Your task to perform on an android device: turn off location Image 0: 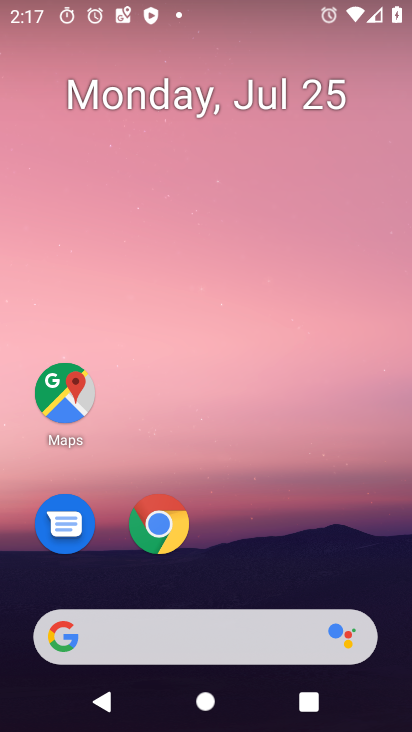
Step 0: press home button
Your task to perform on an android device: turn off location Image 1: 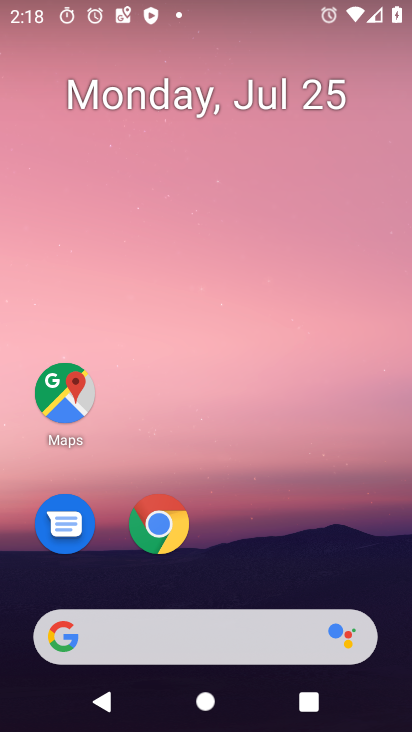
Step 1: drag from (257, 555) to (306, 43)
Your task to perform on an android device: turn off location Image 2: 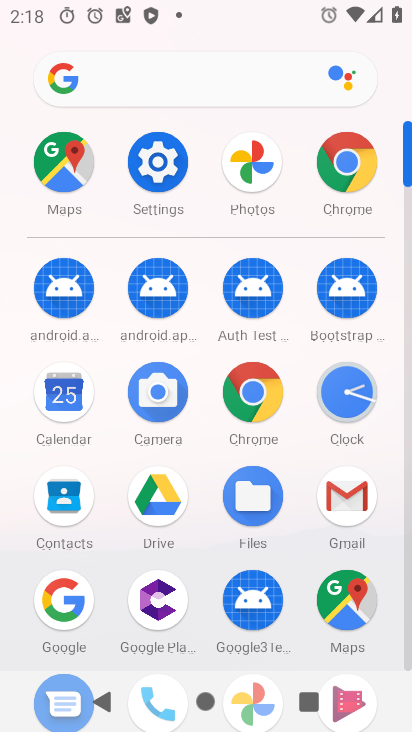
Step 2: click (171, 179)
Your task to perform on an android device: turn off location Image 3: 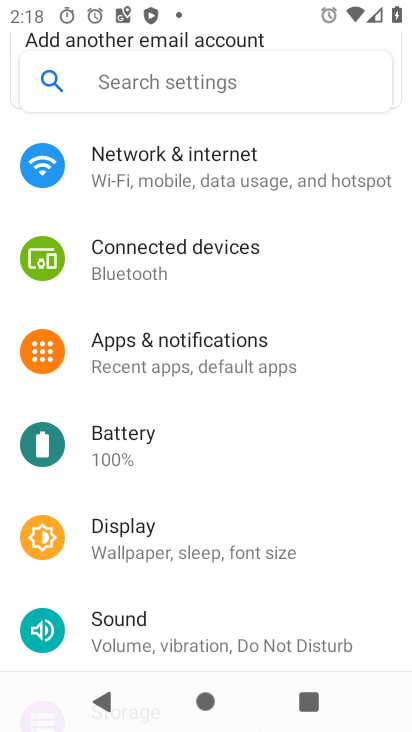
Step 3: drag from (315, 609) to (299, 105)
Your task to perform on an android device: turn off location Image 4: 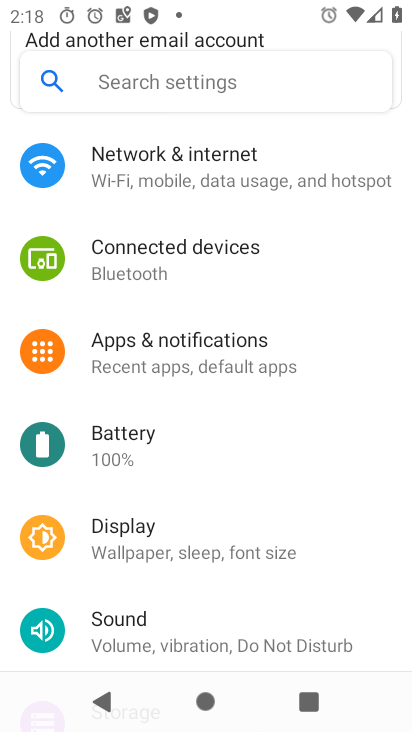
Step 4: drag from (304, 469) to (317, 18)
Your task to perform on an android device: turn off location Image 5: 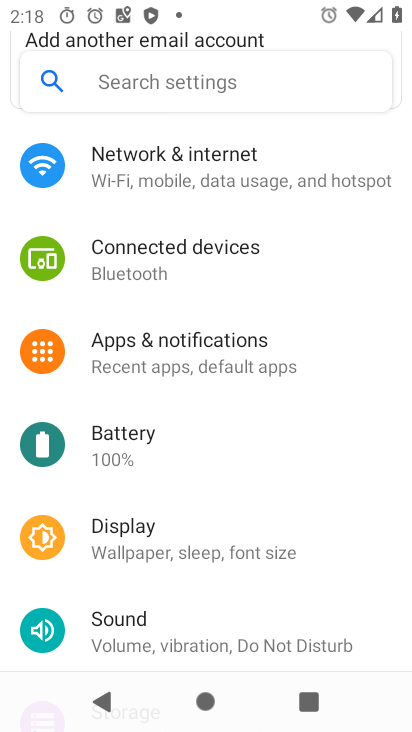
Step 5: drag from (331, 586) to (250, 52)
Your task to perform on an android device: turn off location Image 6: 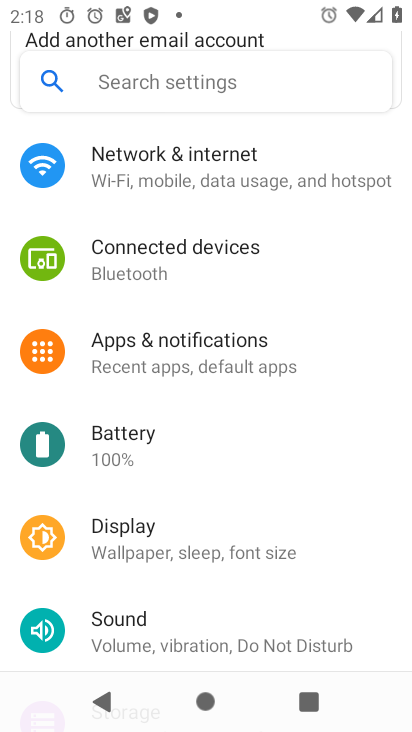
Step 6: drag from (273, 601) to (237, 126)
Your task to perform on an android device: turn off location Image 7: 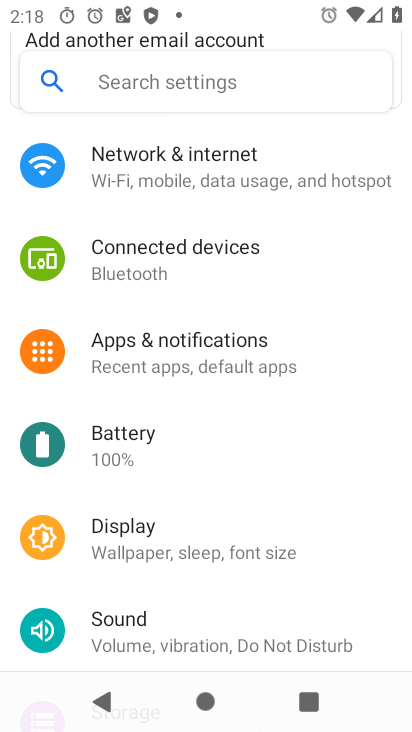
Step 7: drag from (283, 591) to (352, 50)
Your task to perform on an android device: turn off location Image 8: 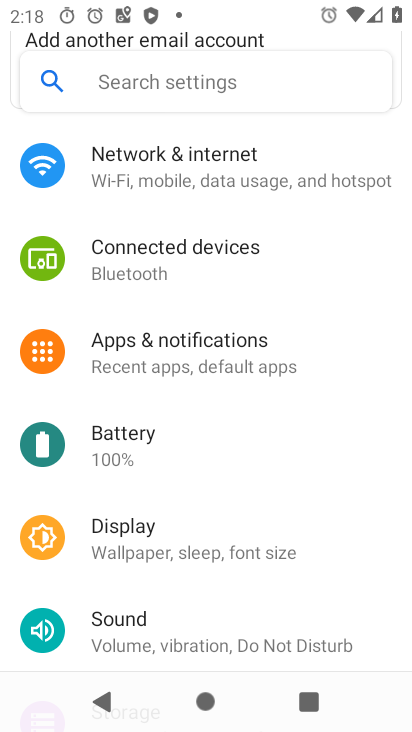
Step 8: drag from (316, 241) to (268, 0)
Your task to perform on an android device: turn off location Image 9: 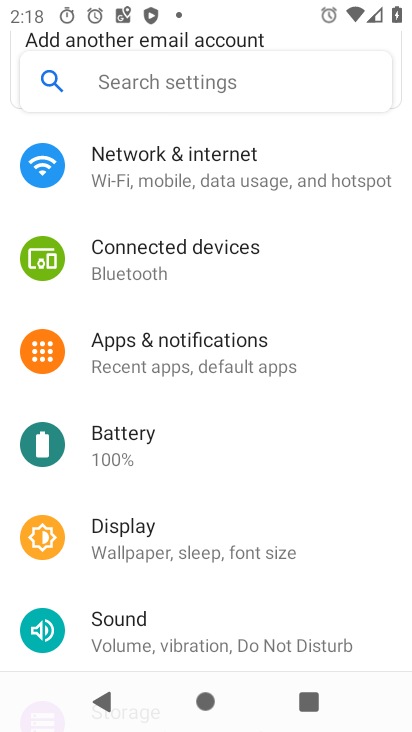
Step 9: drag from (190, 518) to (232, 93)
Your task to perform on an android device: turn off location Image 10: 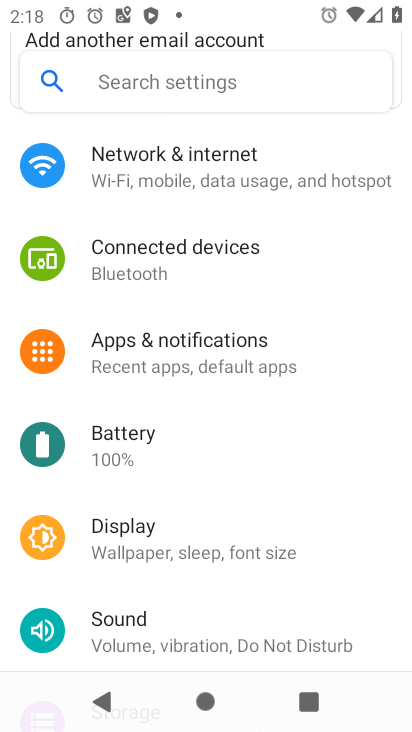
Step 10: drag from (257, 591) to (239, 30)
Your task to perform on an android device: turn off location Image 11: 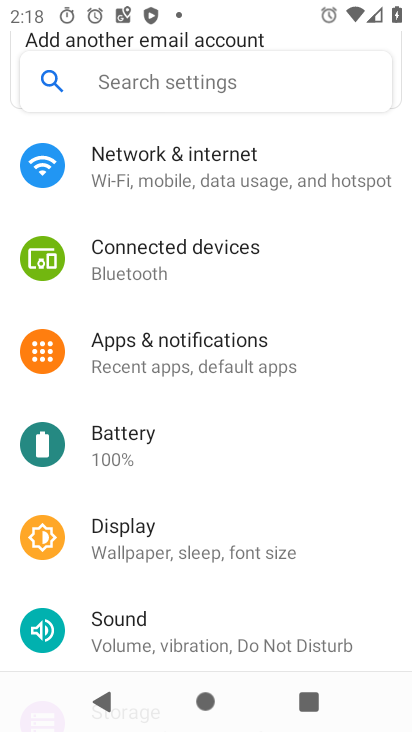
Step 11: drag from (228, 504) to (140, 10)
Your task to perform on an android device: turn off location Image 12: 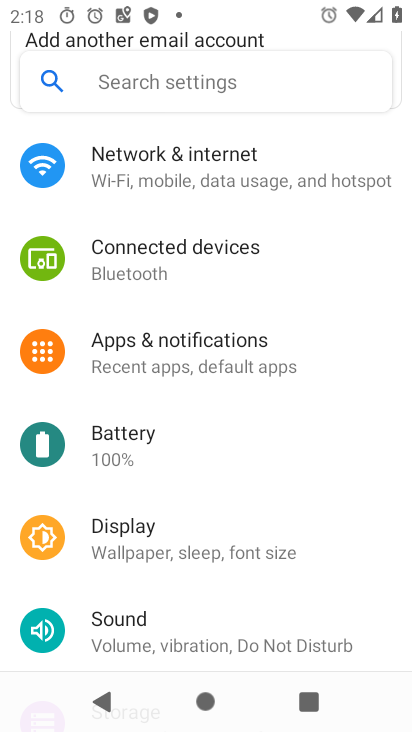
Step 12: drag from (337, 595) to (266, 22)
Your task to perform on an android device: turn off location Image 13: 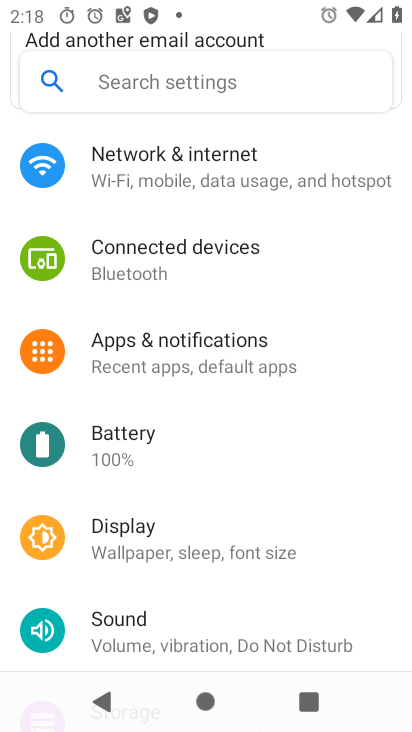
Step 13: drag from (286, 632) to (376, 26)
Your task to perform on an android device: turn off location Image 14: 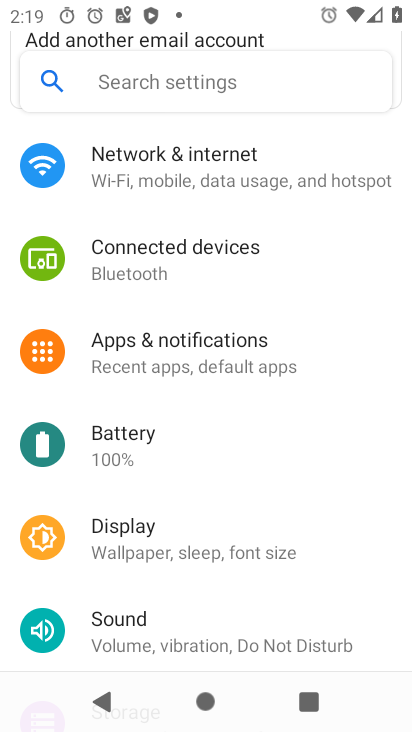
Step 14: drag from (313, 604) to (314, 307)
Your task to perform on an android device: turn off location Image 15: 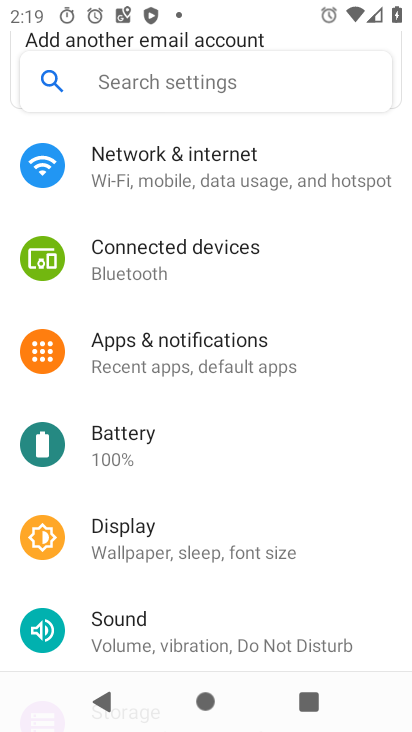
Step 15: drag from (293, 620) to (348, 279)
Your task to perform on an android device: turn off location Image 16: 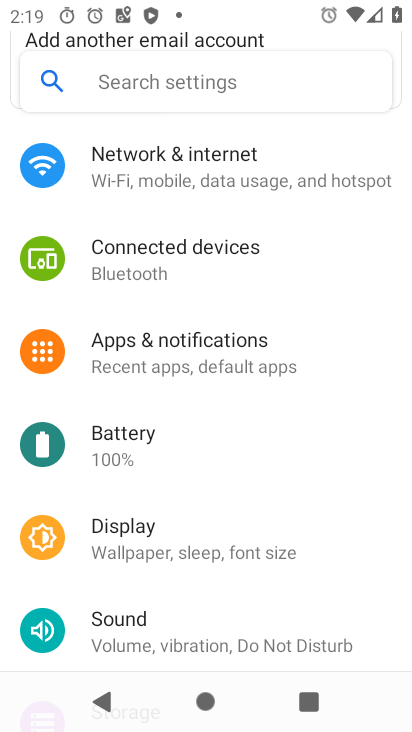
Step 16: drag from (351, 602) to (326, 3)
Your task to perform on an android device: turn off location Image 17: 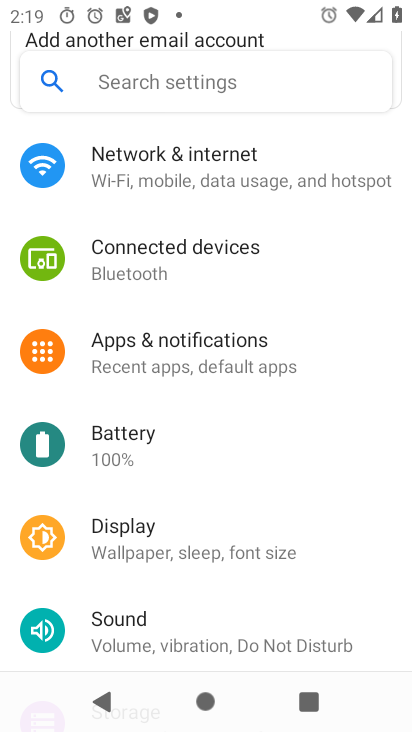
Step 17: drag from (277, 568) to (406, 3)
Your task to perform on an android device: turn off location Image 18: 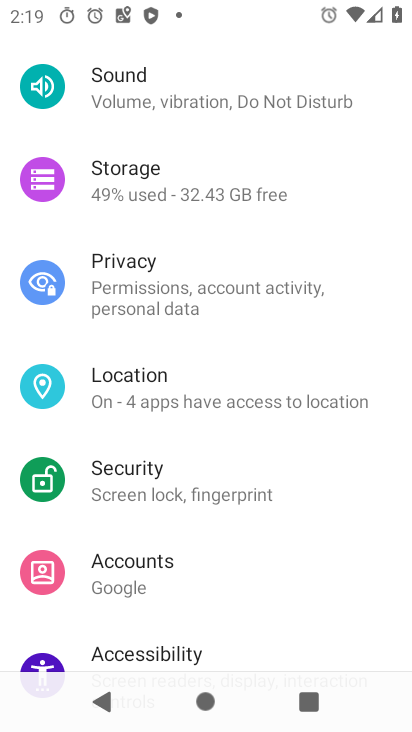
Step 18: click (139, 395)
Your task to perform on an android device: turn off location Image 19: 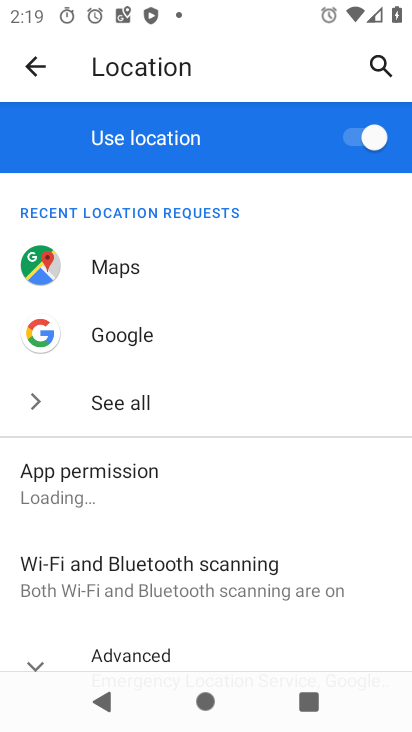
Step 19: click (374, 137)
Your task to perform on an android device: turn off location Image 20: 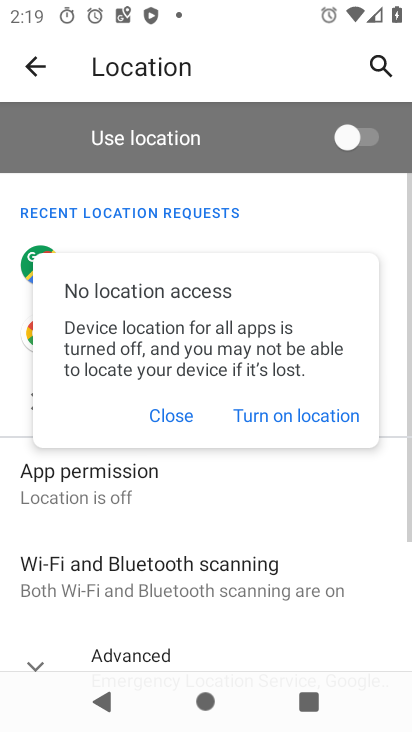
Step 20: task complete